Your task to perform on an android device: delete the emails in spam in the gmail app Image 0: 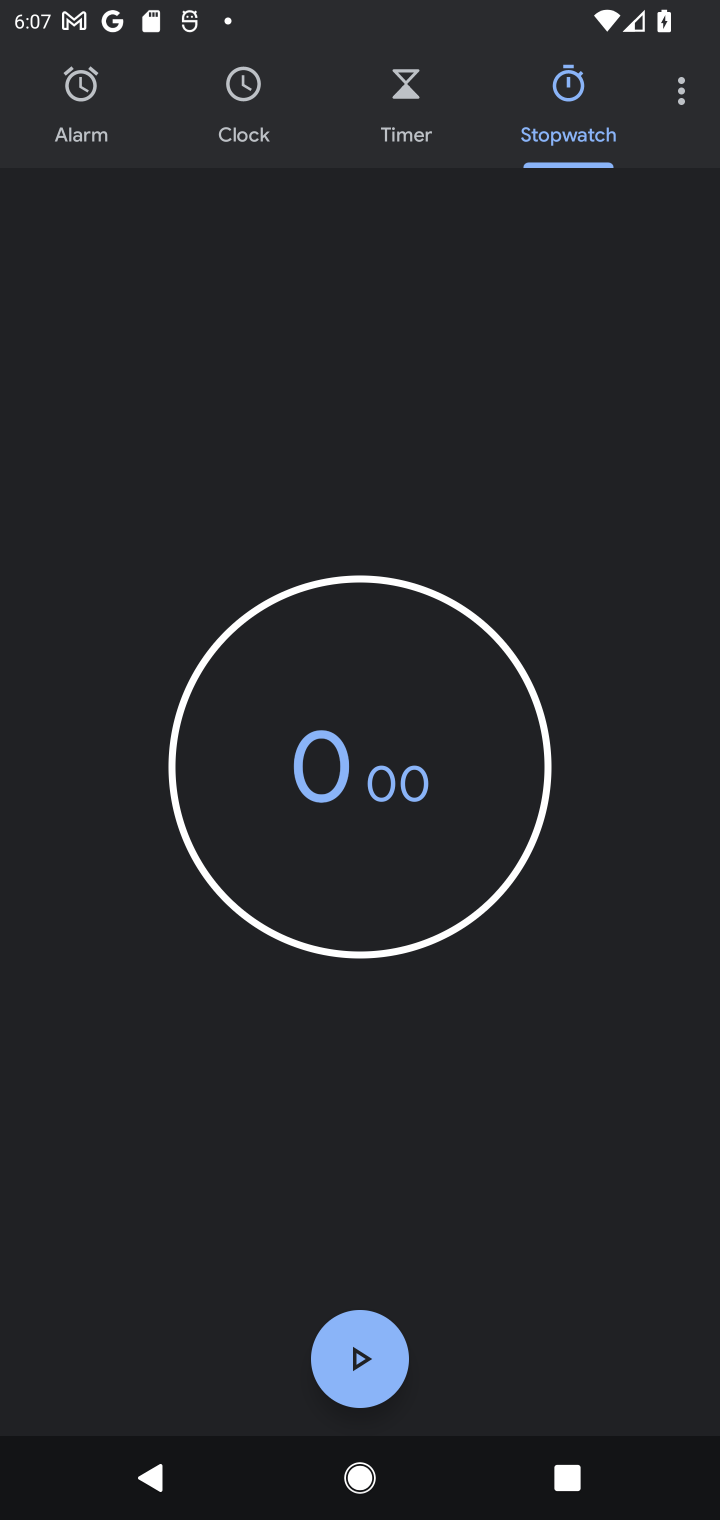
Step 0: press home button
Your task to perform on an android device: delete the emails in spam in the gmail app Image 1: 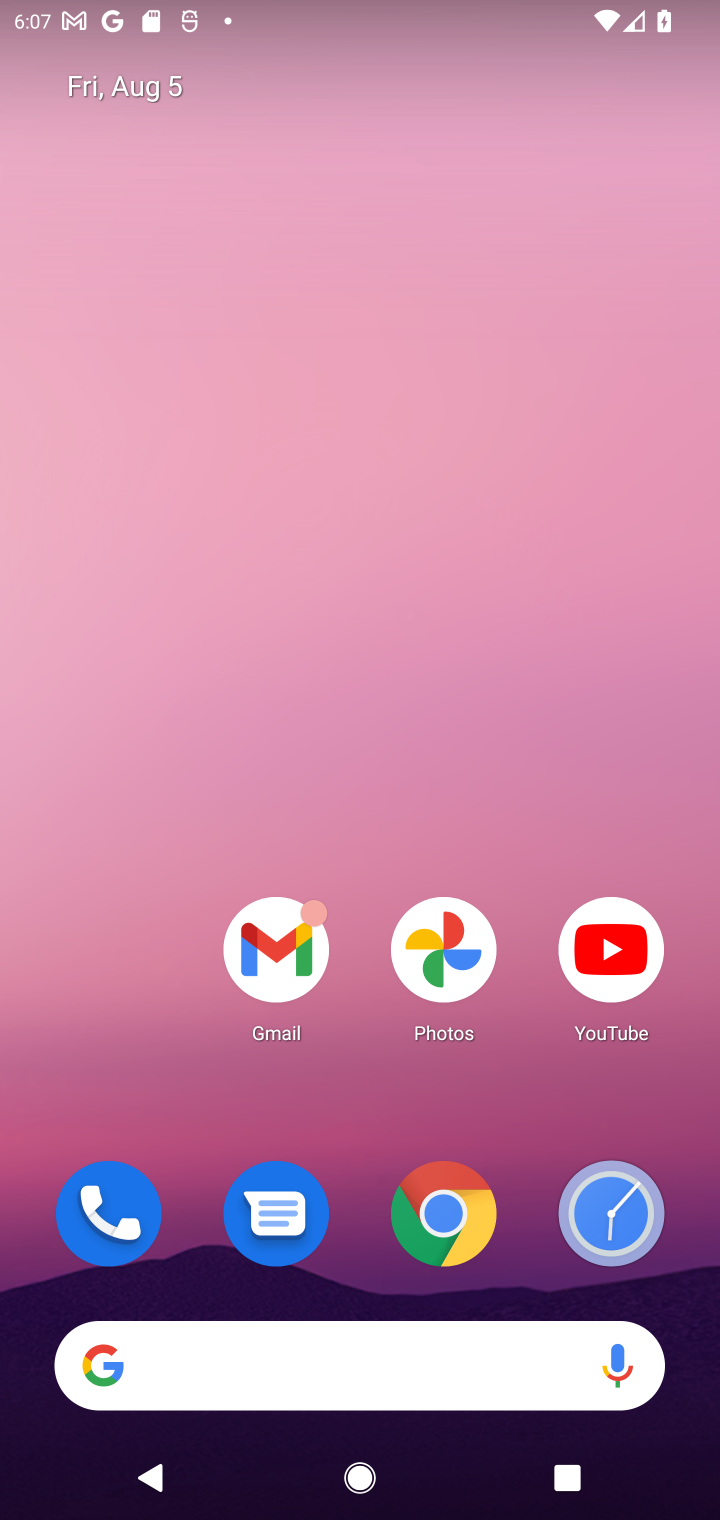
Step 1: press home button
Your task to perform on an android device: delete the emails in spam in the gmail app Image 2: 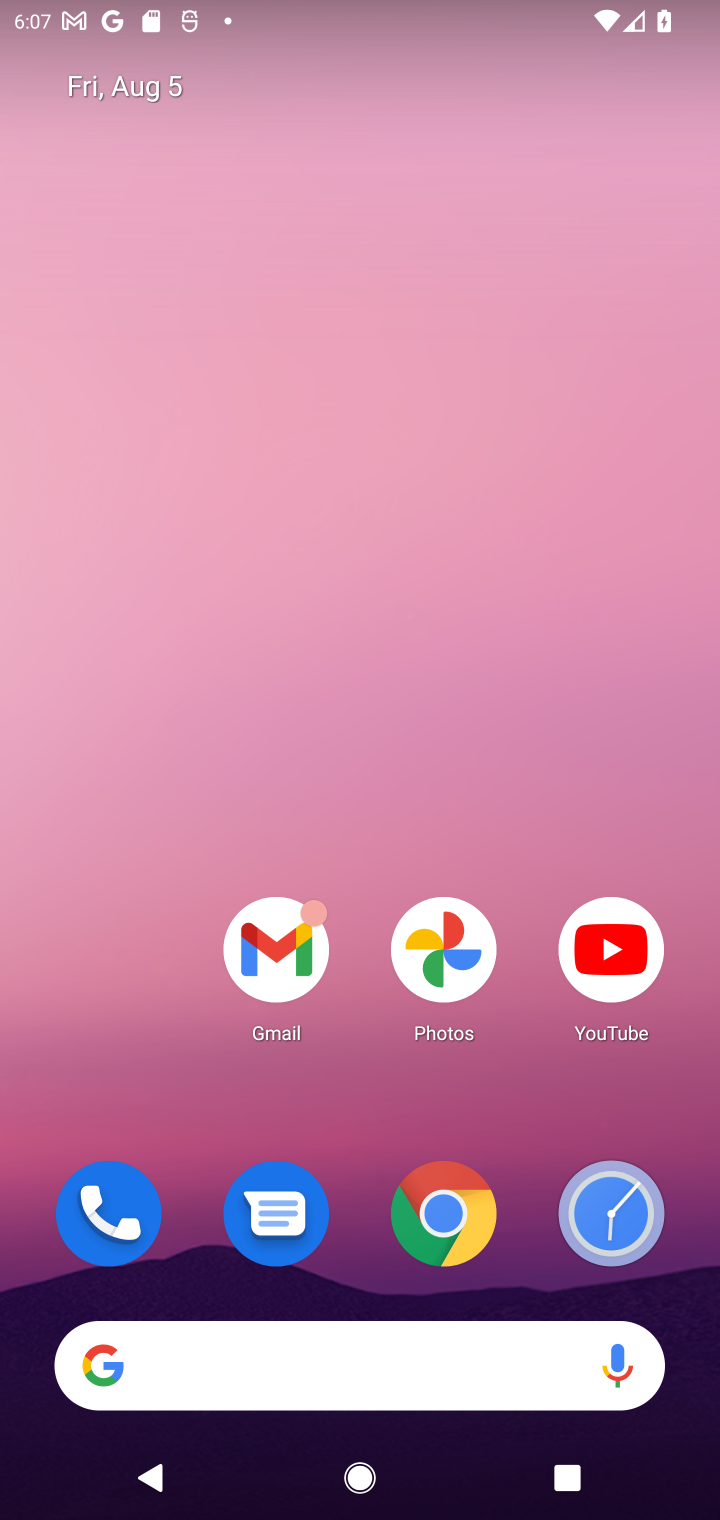
Step 2: click (301, 933)
Your task to perform on an android device: delete the emails in spam in the gmail app Image 3: 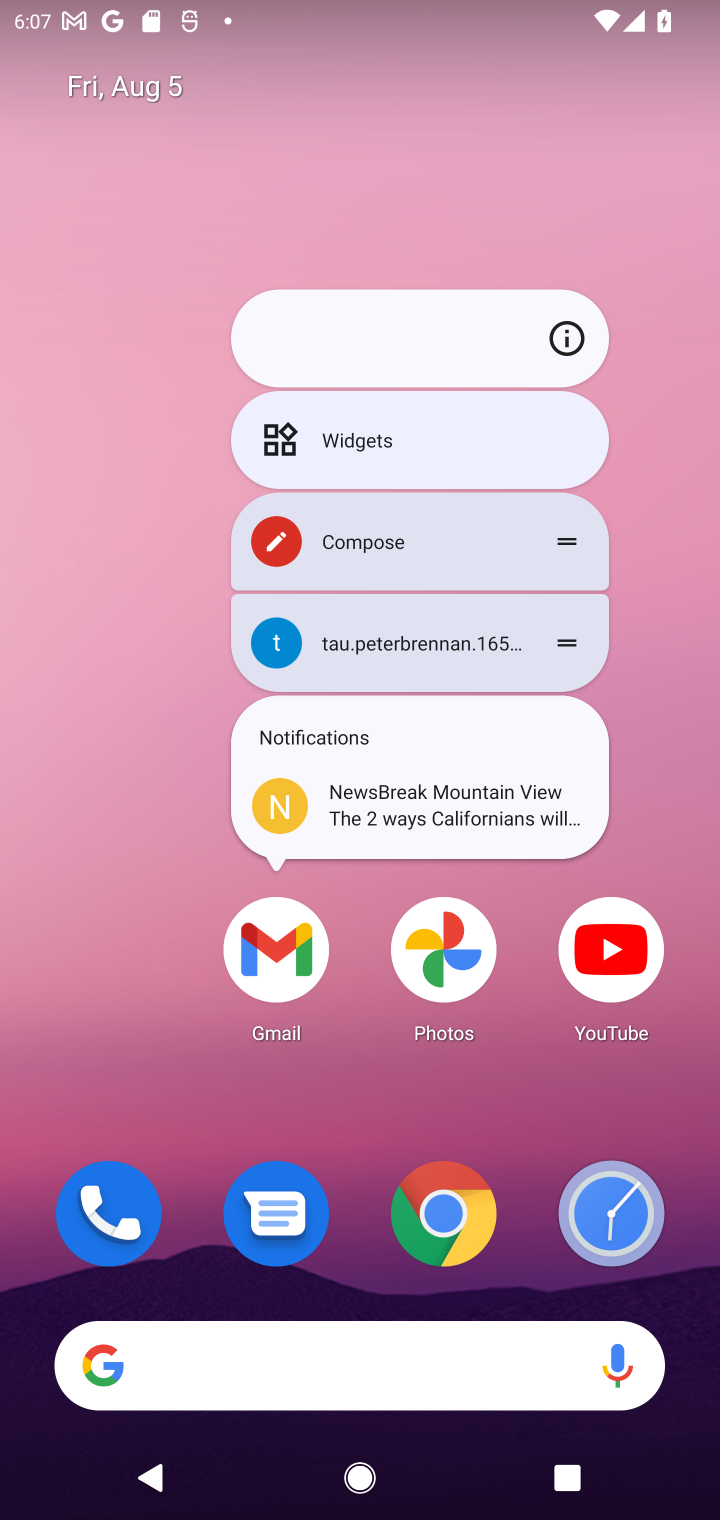
Step 3: click (301, 933)
Your task to perform on an android device: delete the emails in spam in the gmail app Image 4: 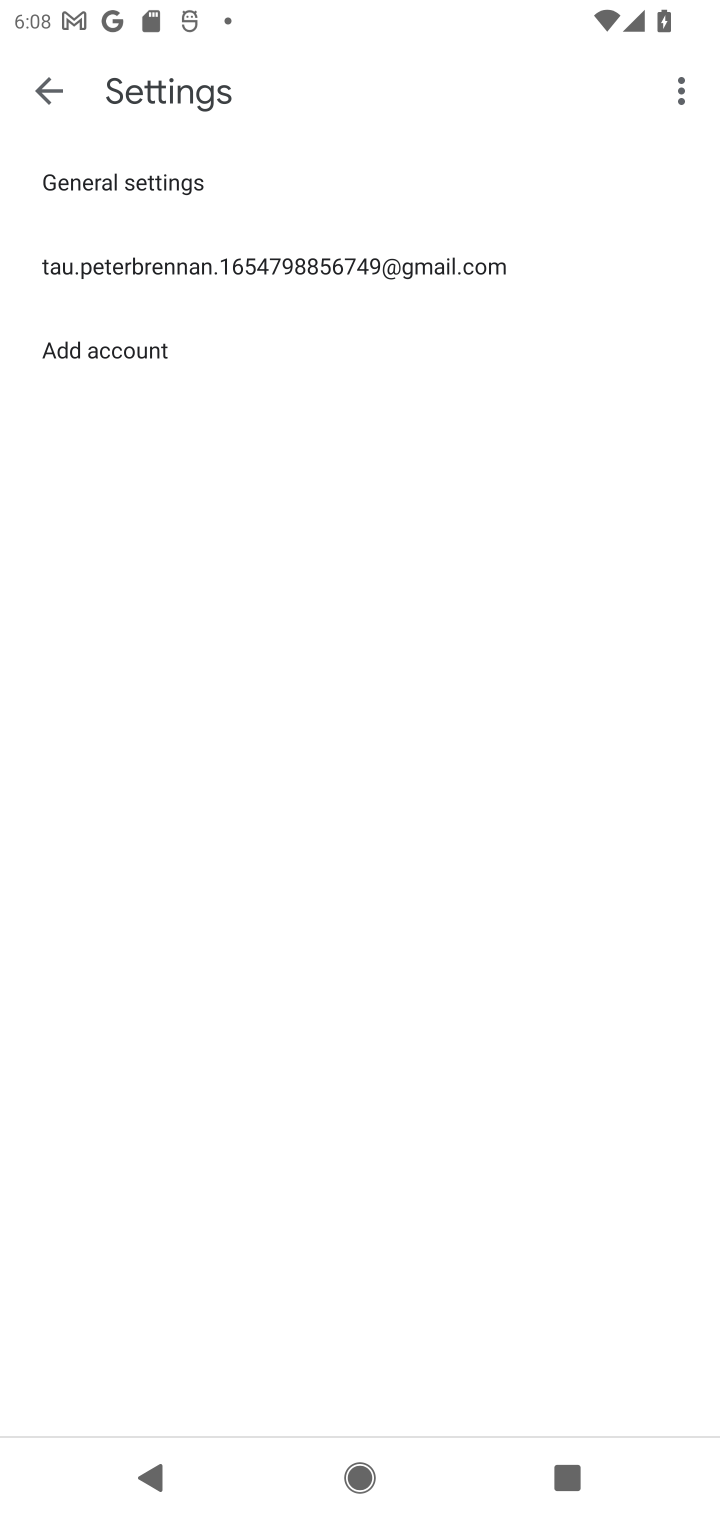
Step 4: click (59, 101)
Your task to perform on an android device: delete the emails in spam in the gmail app Image 5: 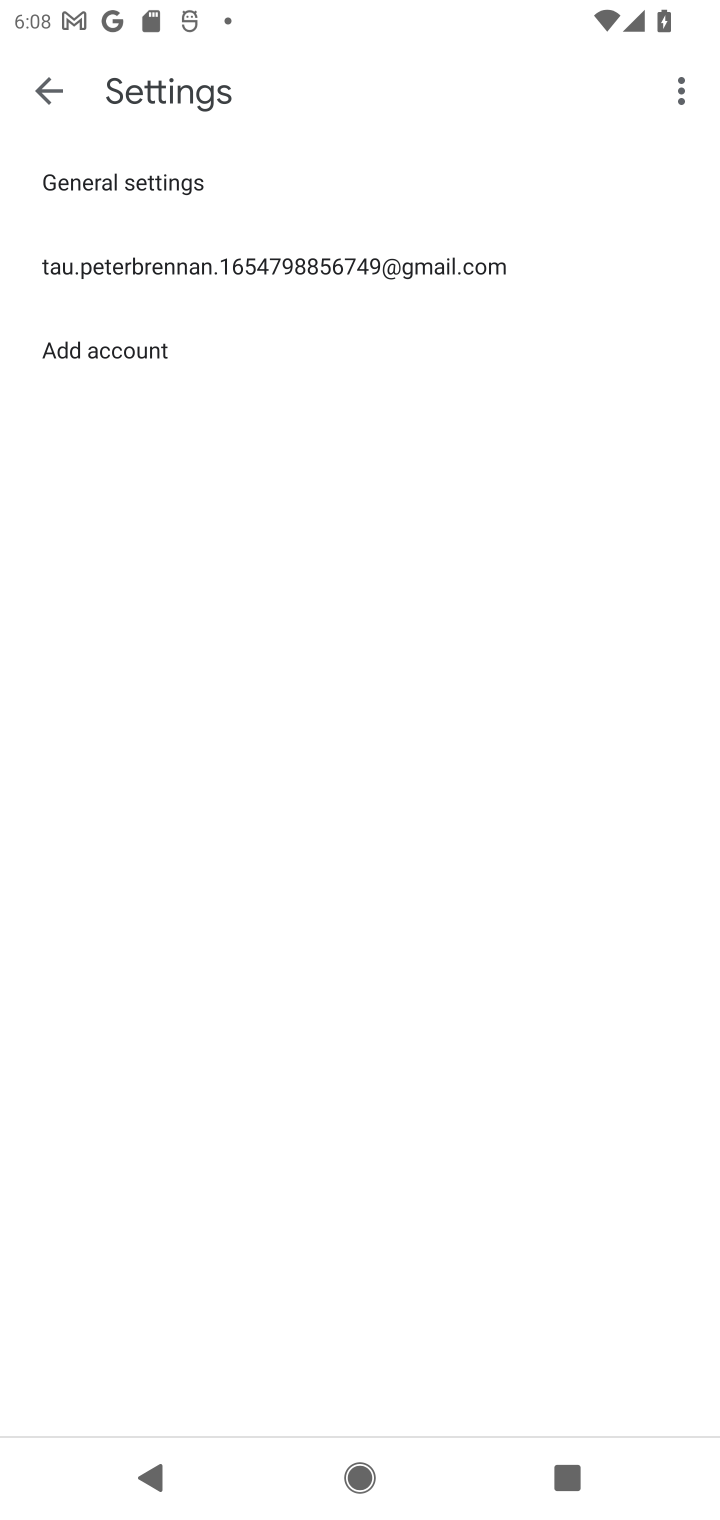
Step 5: click (49, 90)
Your task to perform on an android device: delete the emails in spam in the gmail app Image 6: 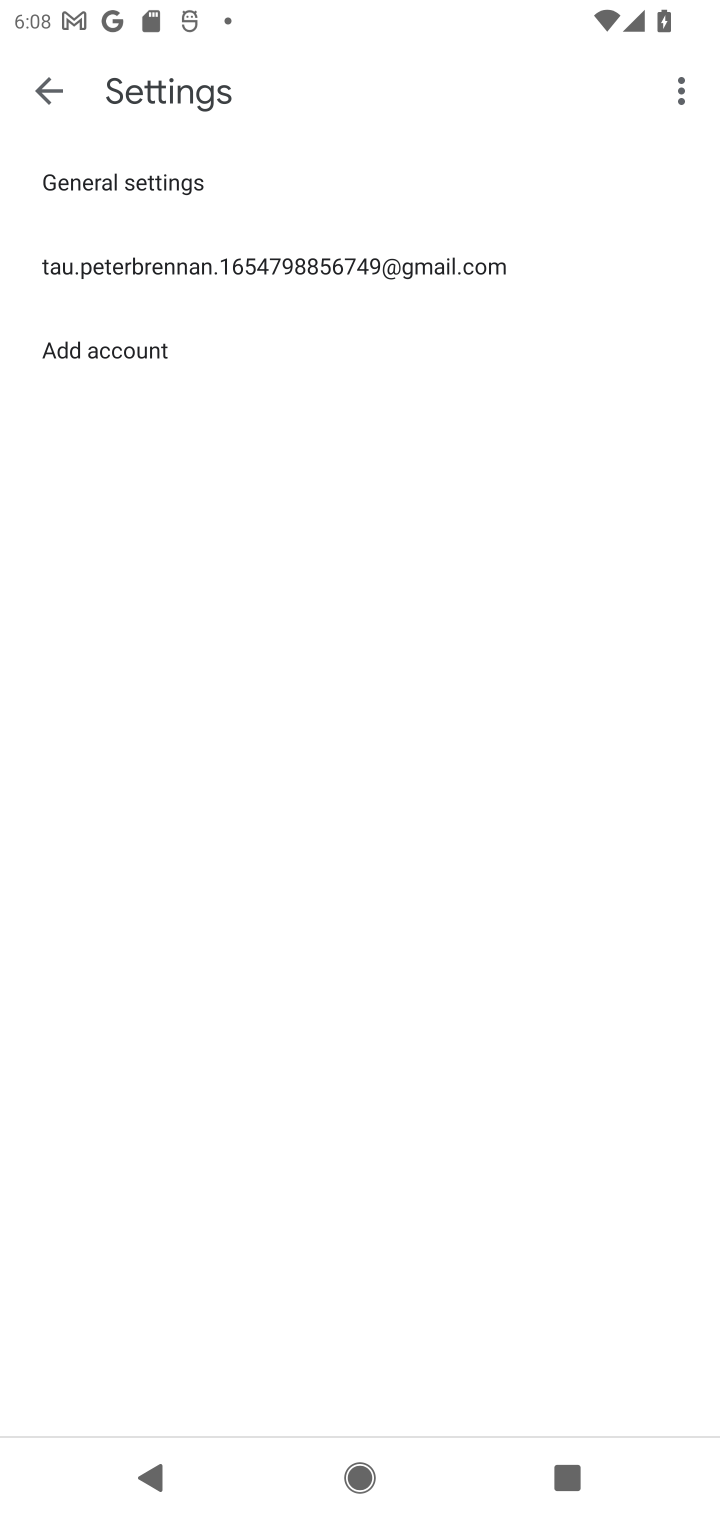
Step 6: click (49, 90)
Your task to perform on an android device: delete the emails in spam in the gmail app Image 7: 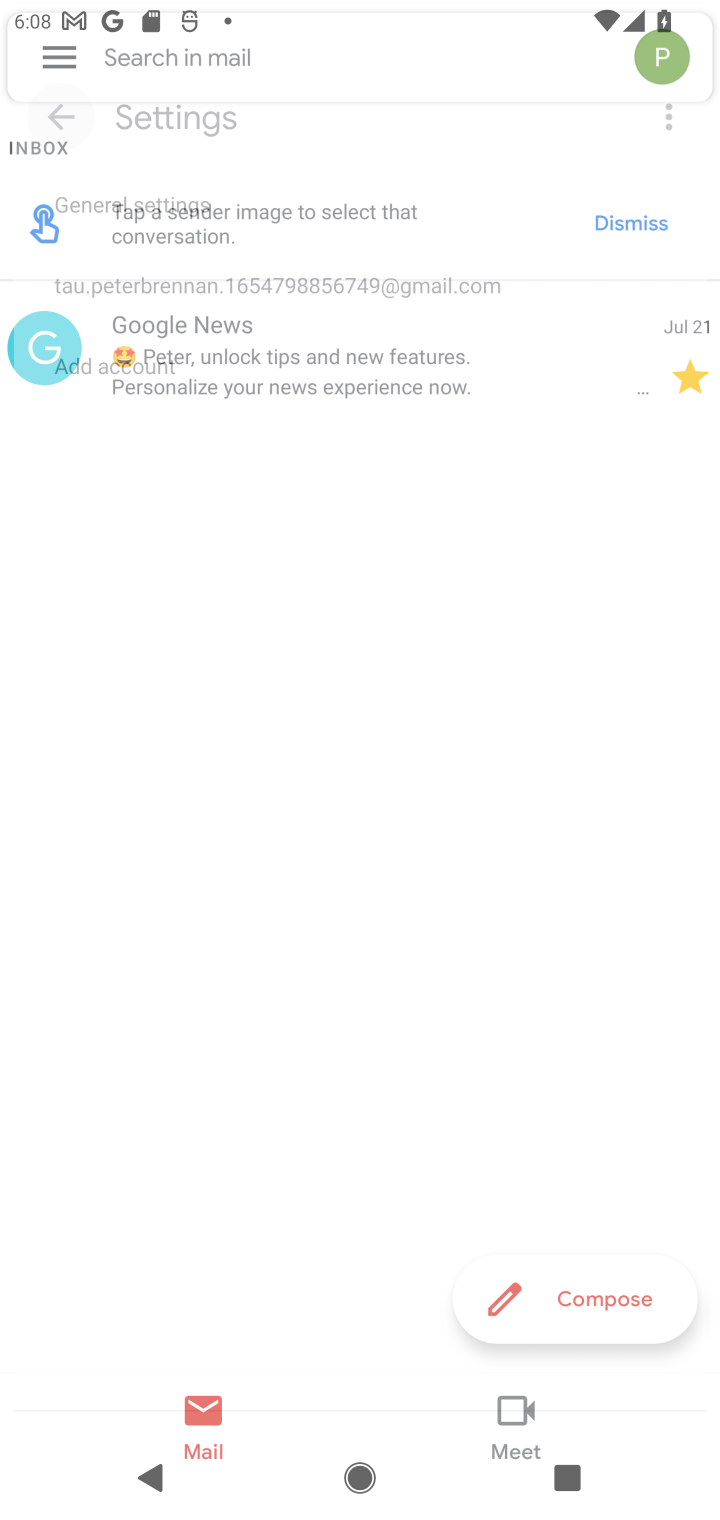
Step 7: task complete